Your task to perform on an android device: What is the news today? Image 0: 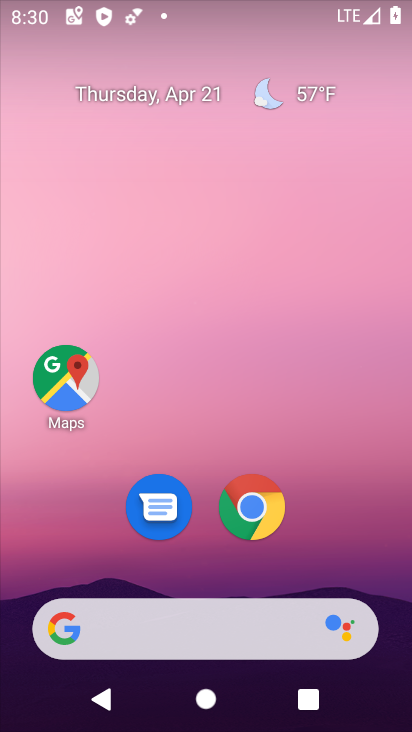
Step 0: click (259, 498)
Your task to perform on an android device: What is the news today? Image 1: 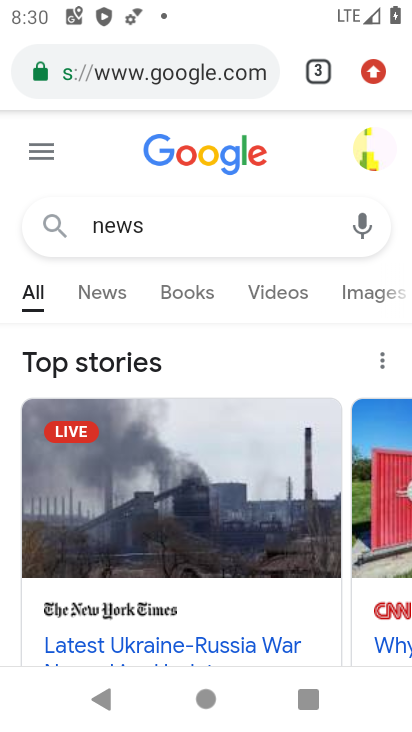
Step 1: click (166, 227)
Your task to perform on an android device: What is the news today? Image 2: 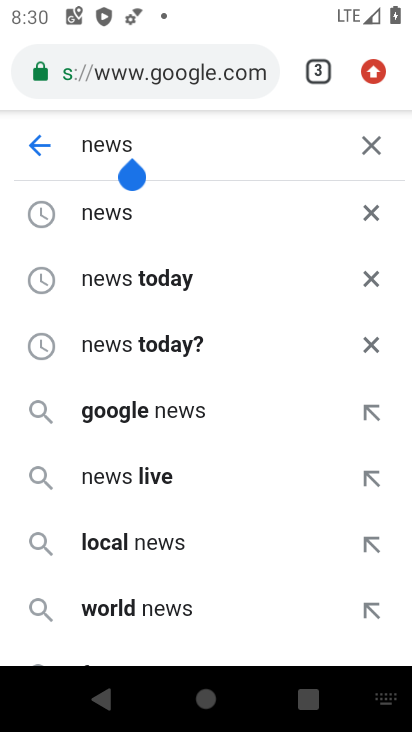
Step 2: click (368, 146)
Your task to perform on an android device: What is the news today? Image 3: 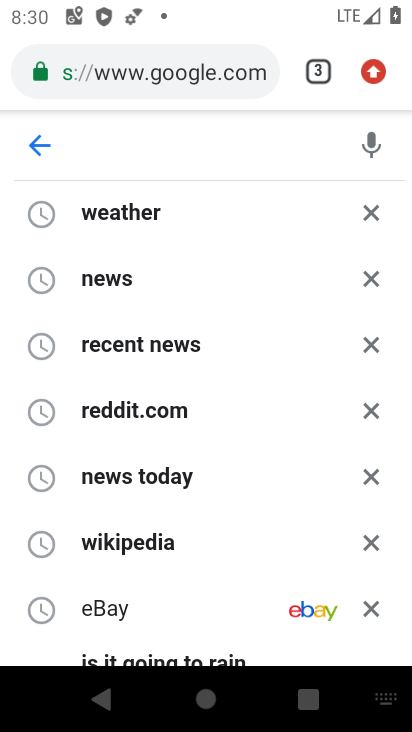
Step 3: click (190, 148)
Your task to perform on an android device: What is the news today? Image 4: 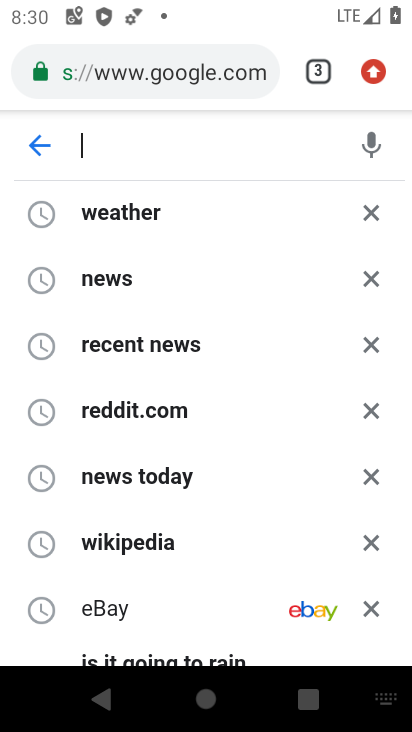
Step 4: type "What is the news today?"
Your task to perform on an android device: What is the news today? Image 5: 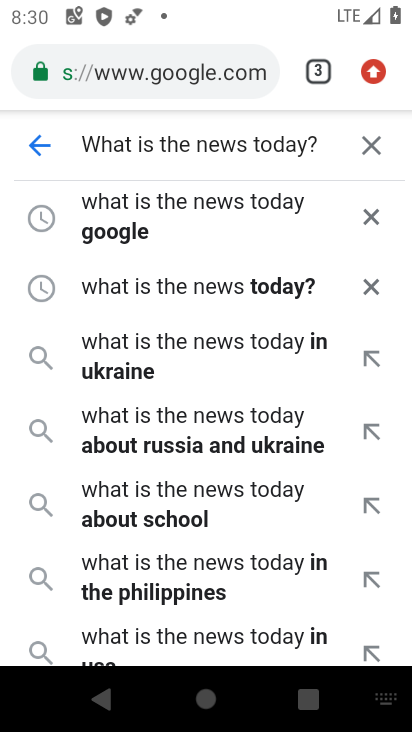
Step 5: click (218, 284)
Your task to perform on an android device: What is the news today? Image 6: 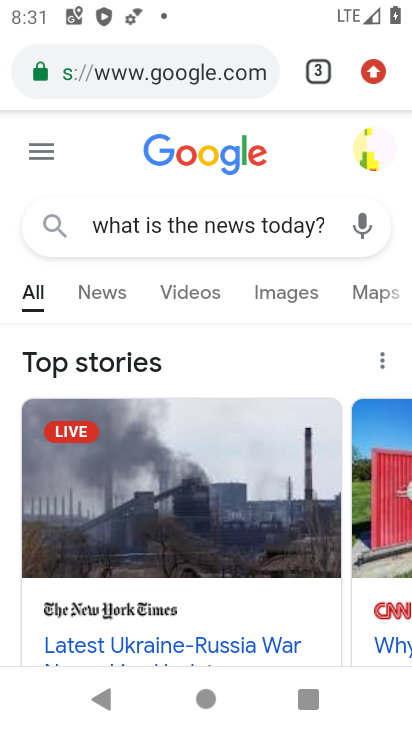
Step 6: task complete